Your task to perform on an android device: toggle translation in the chrome app Image 0: 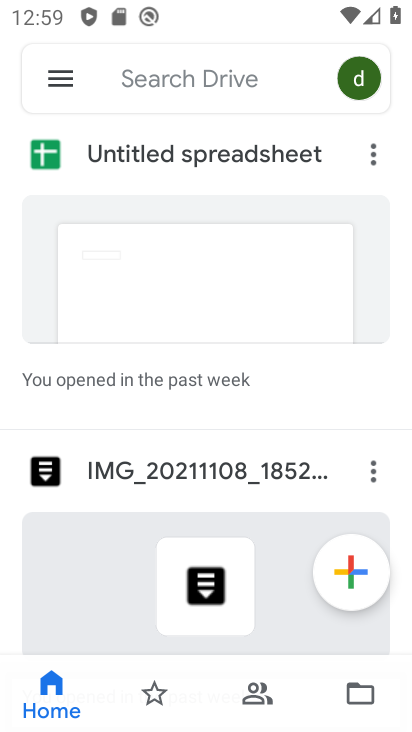
Step 0: press home button
Your task to perform on an android device: toggle translation in the chrome app Image 1: 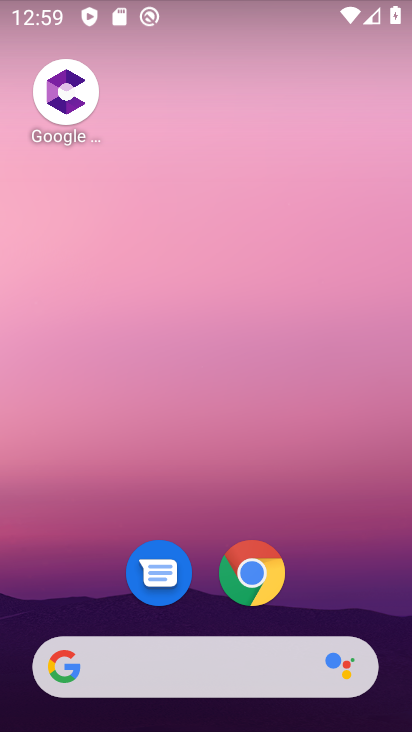
Step 1: drag from (369, 598) to (387, 182)
Your task to perform on an android device: toggle translation in the chrome app Image 2: 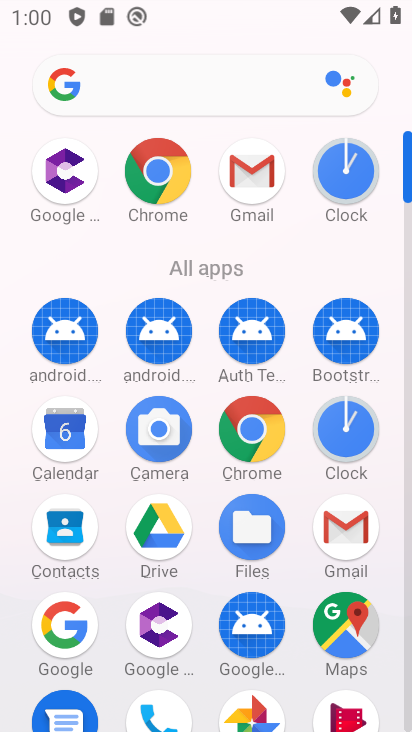
Step 2: click (169, 187)
Your task to perform on an android device: toggle translation in the chrome app Image 3: 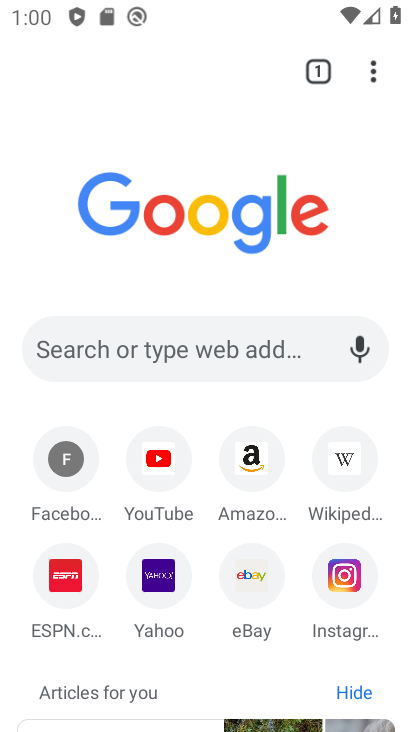
Step 3: click (372, 77)
Your task to perform on an android device: toggle translation in the chrome app Image 4: 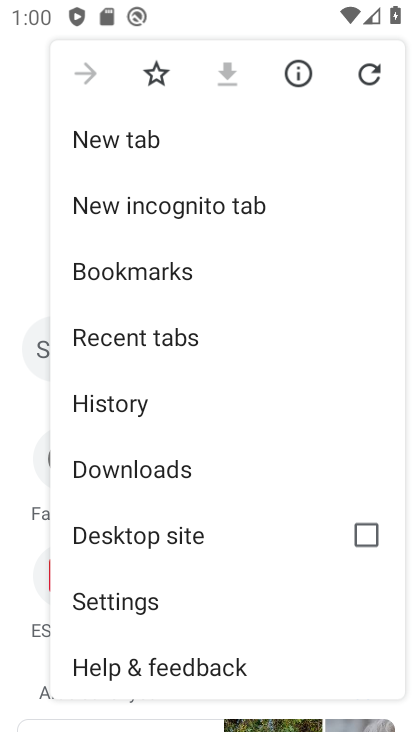
Step 4: click (195, 608)
Your task to perform on an android device: toggle translation in the chrome app Image 5: 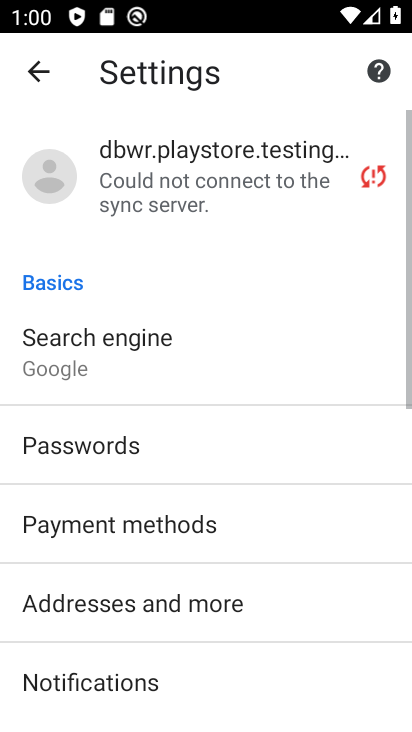
Step 5: drag from (307, 568) to (323, 448)
Your task to perform on an android device: toggle translation in the chrome app Image 6: 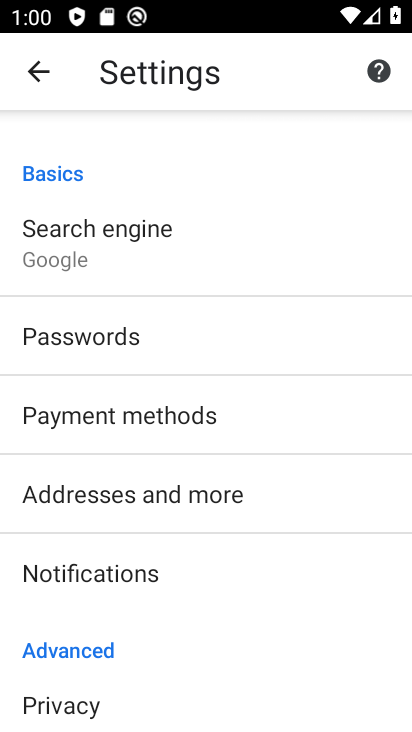
Step 6: drag from (339, 590) to (355, 465)
Your task to perform on an android device: toggle translation in the chrome app Image 7: 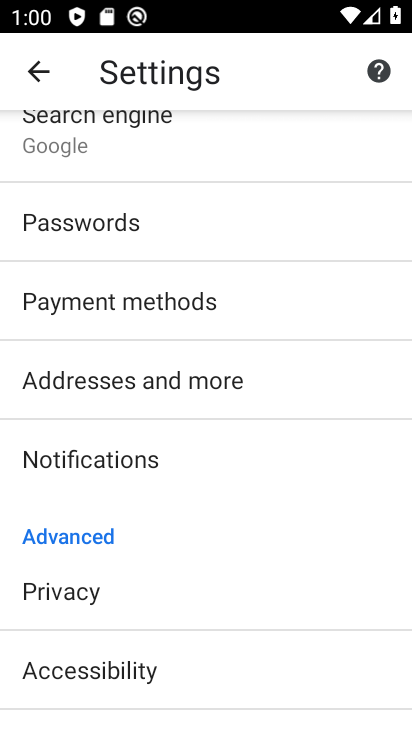
Step 7: drag from (342, 615) to (343, 472)
Your task to perform on an android device: toggle translation in the chrome app Image 8: 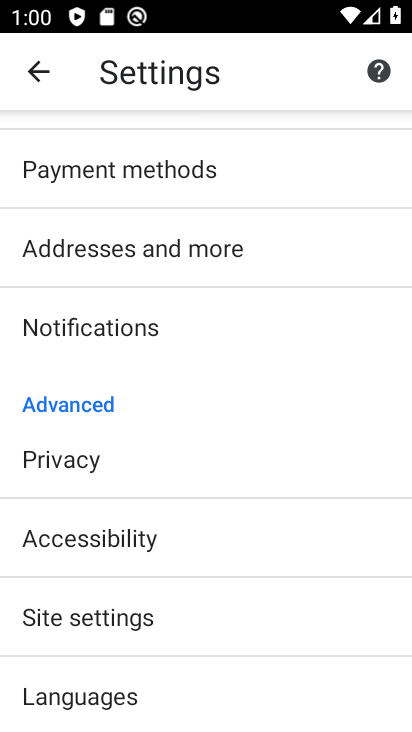
Step 8: drag from (331, 615) to (331, 493)
Your task to perform on an android device: toggle translation in the chrome app Image 9: 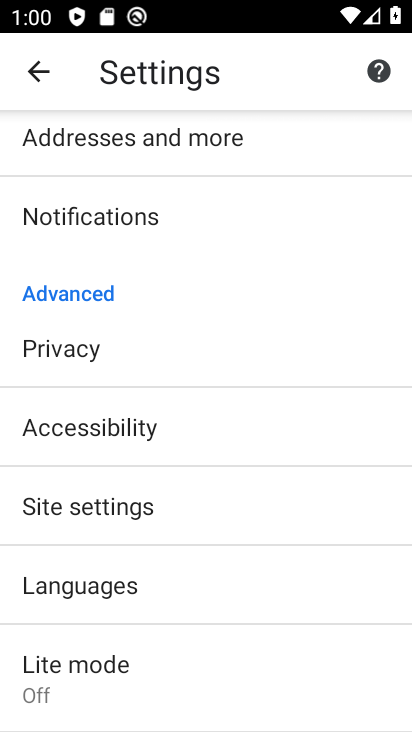
Step 9: drag from (308, 610) to (315, 408)
Your task to perform on an android device: toggle translation in the chrome app Image 10: 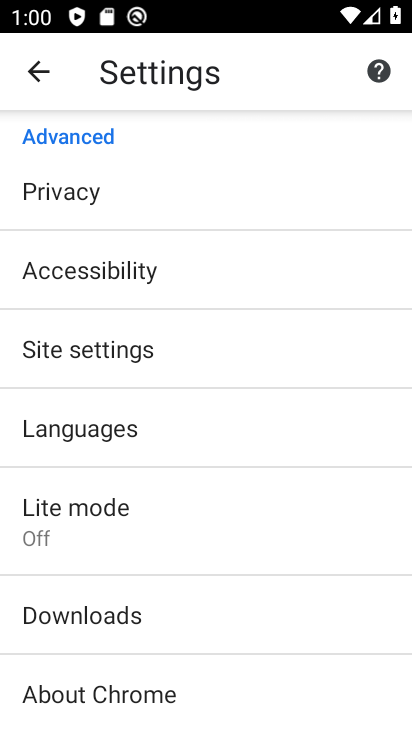
Step 10: click (269, 436)
Your task to perform on an android device: toggle translation in the chrome app Image 11: 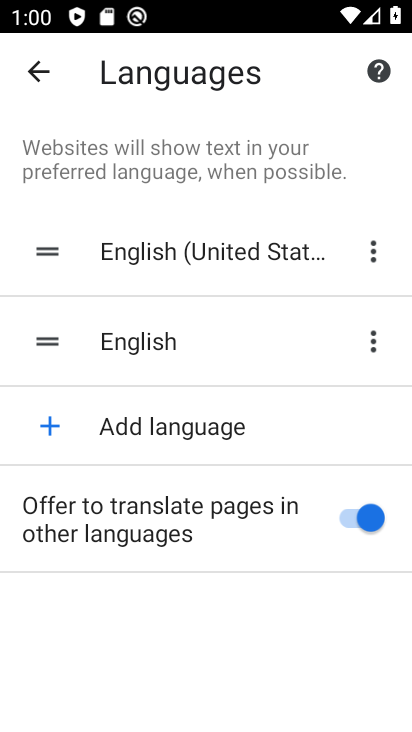
Step 11: click (363, 519)
Your task to perform on an android device: toggle translation in the chrome app Image 12: 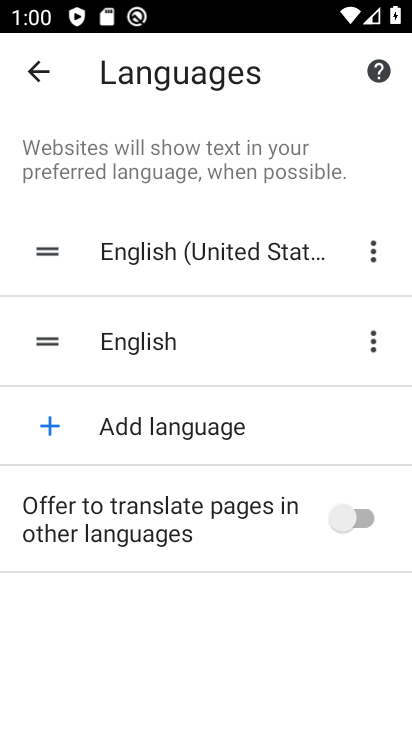
Step 12: task complete